Your task to perform on an android device: What's the weather? Image 0: 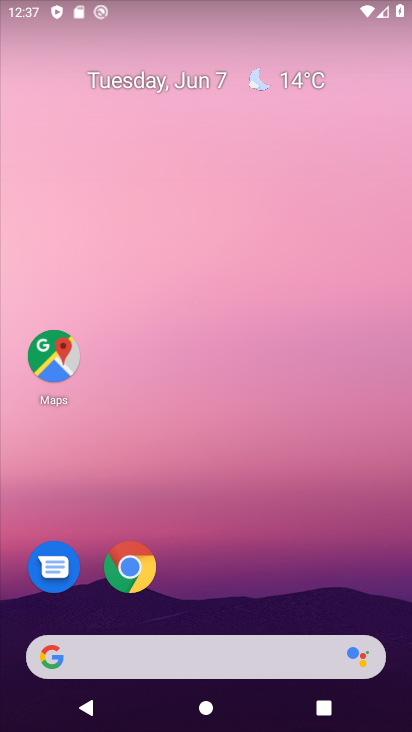
Step 0: click (154, 654)
Your task to perform on an android device: What's the weather? Image 1: 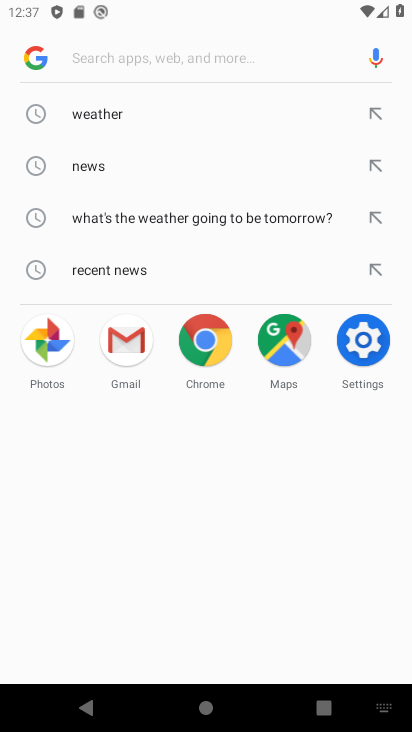
Step 1: type "what's the weather"
Your task to perform on an android device: What's the weather? Image 2: 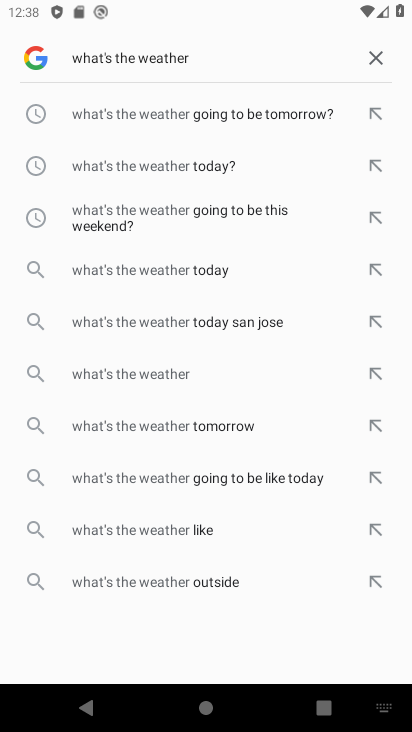
Step 2: click (160, 387)
Your task to perform on an android device: What's the weather? Image 3: 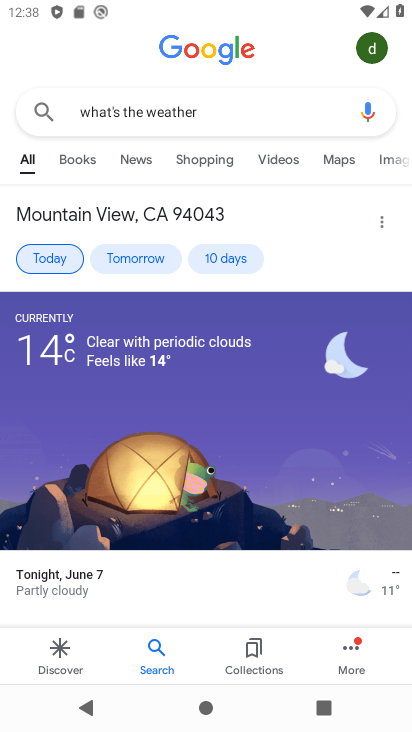
Step 3: task complete